Your task to perform on an android device: open app "Google Play services" Image 0: 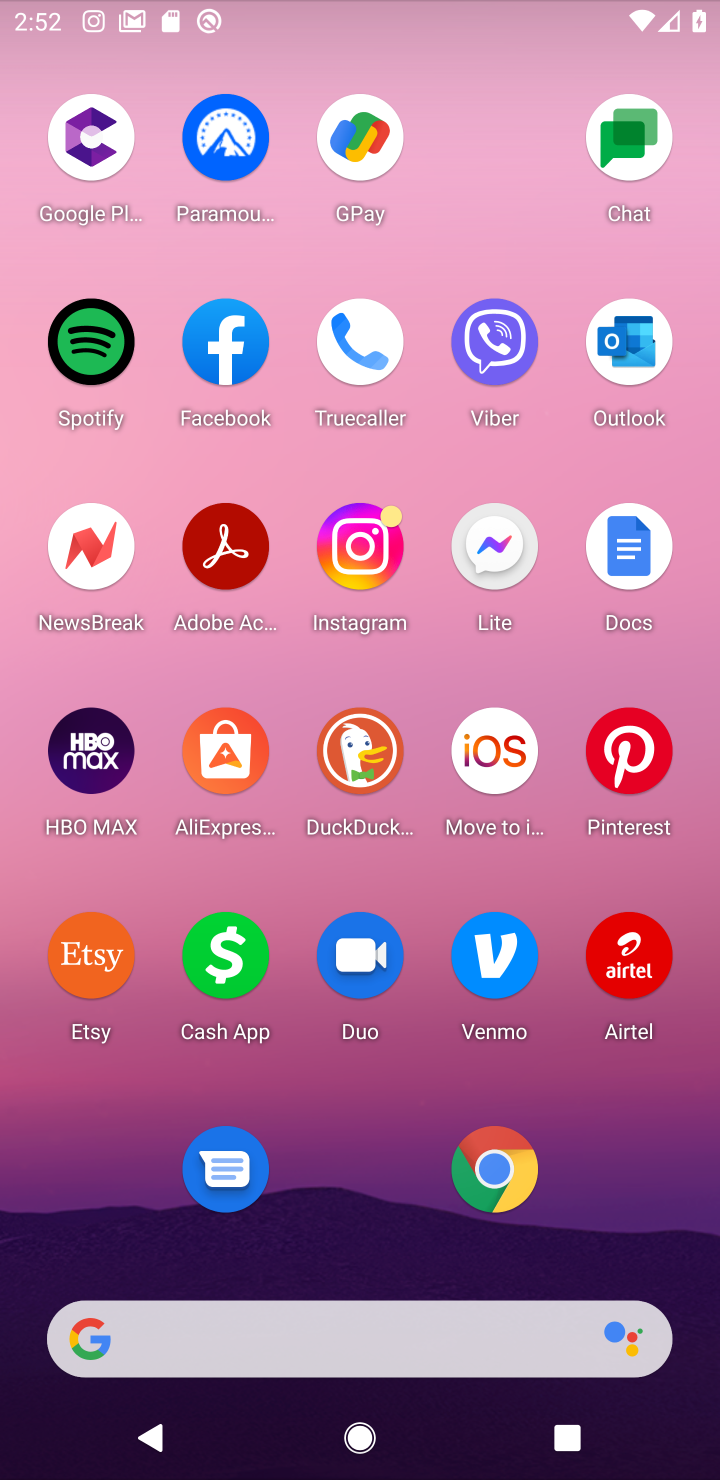
Step 0: press home button
Your task to perform on an android device: open app "Google Play services" Image 1: 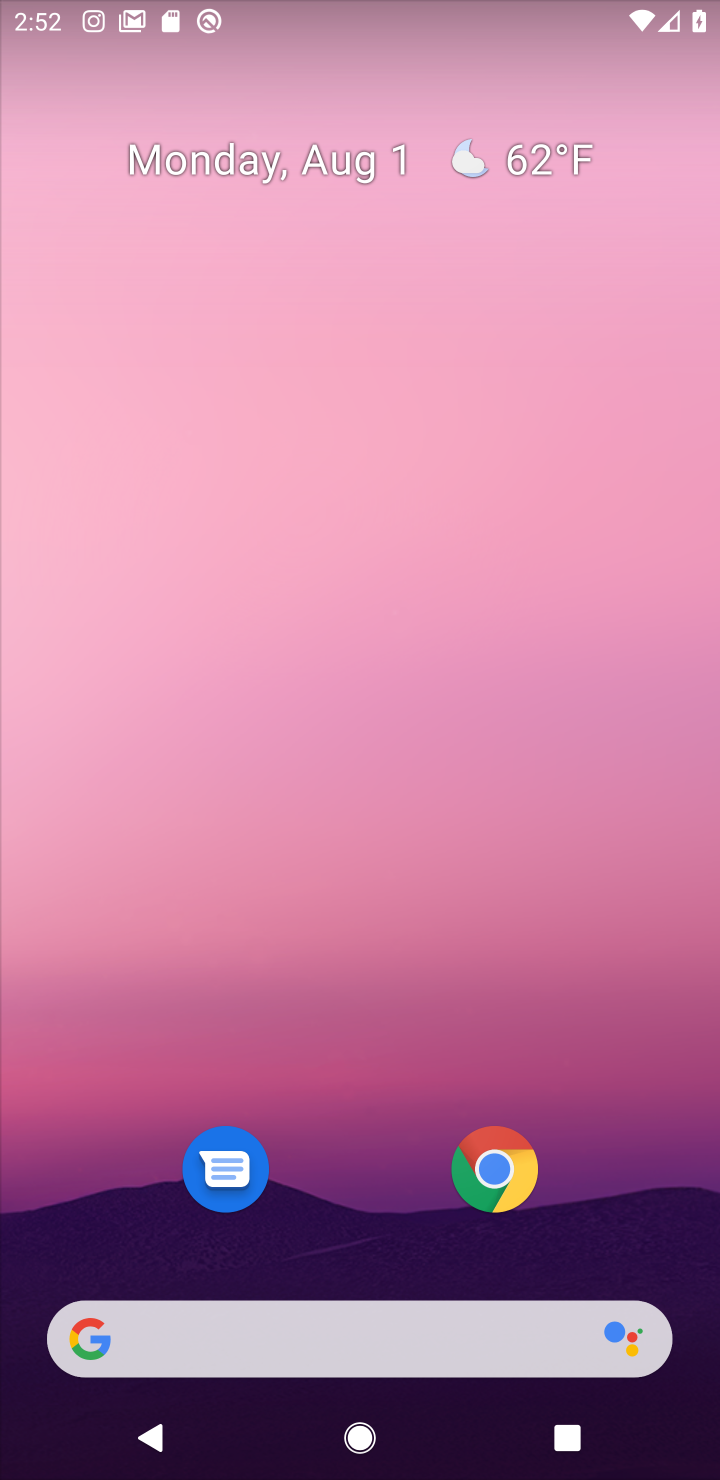
Step 1: drag from (348, 1009) to (348, 349)
Your task to perform on an android device: open app "Google Play services" Image 2: 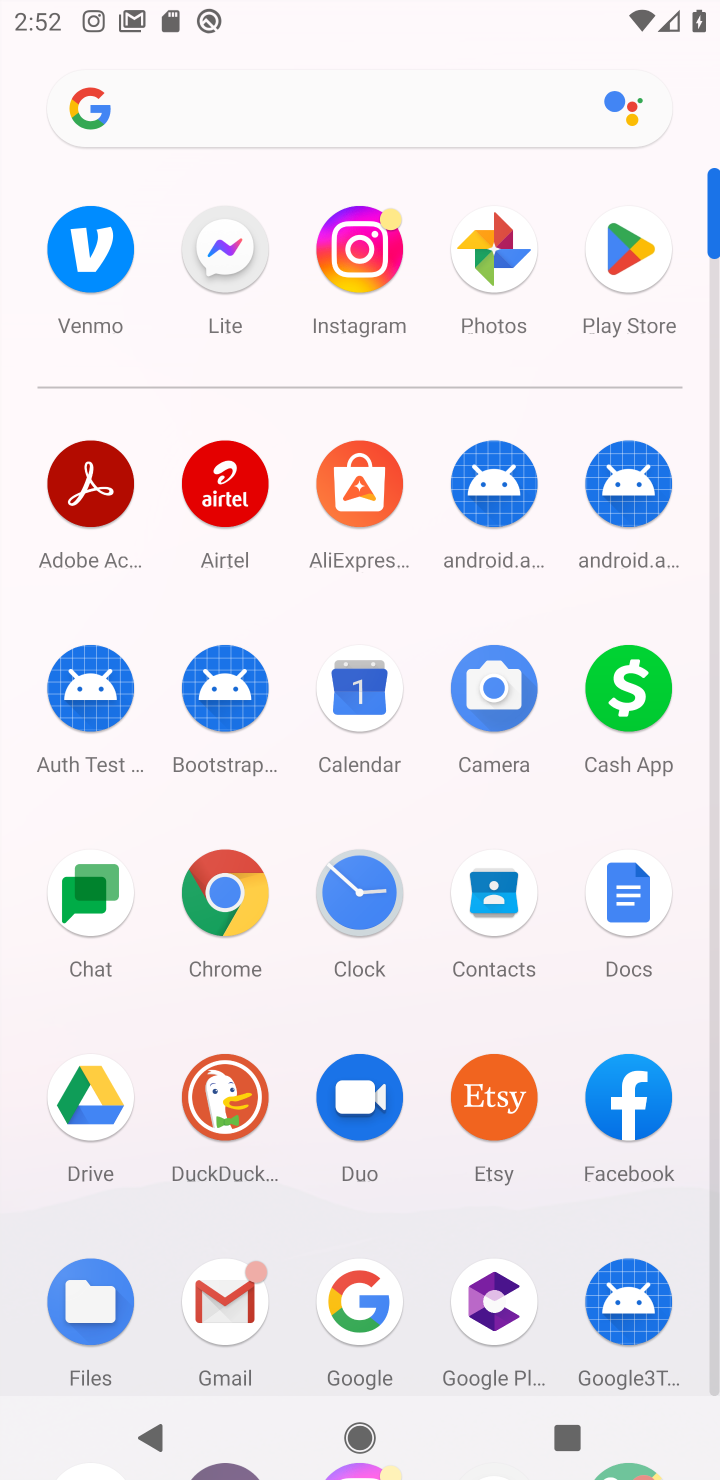
Step 2: click (337, 946)
Your task to perform on an android device: open app "Google Play services" Image 3: 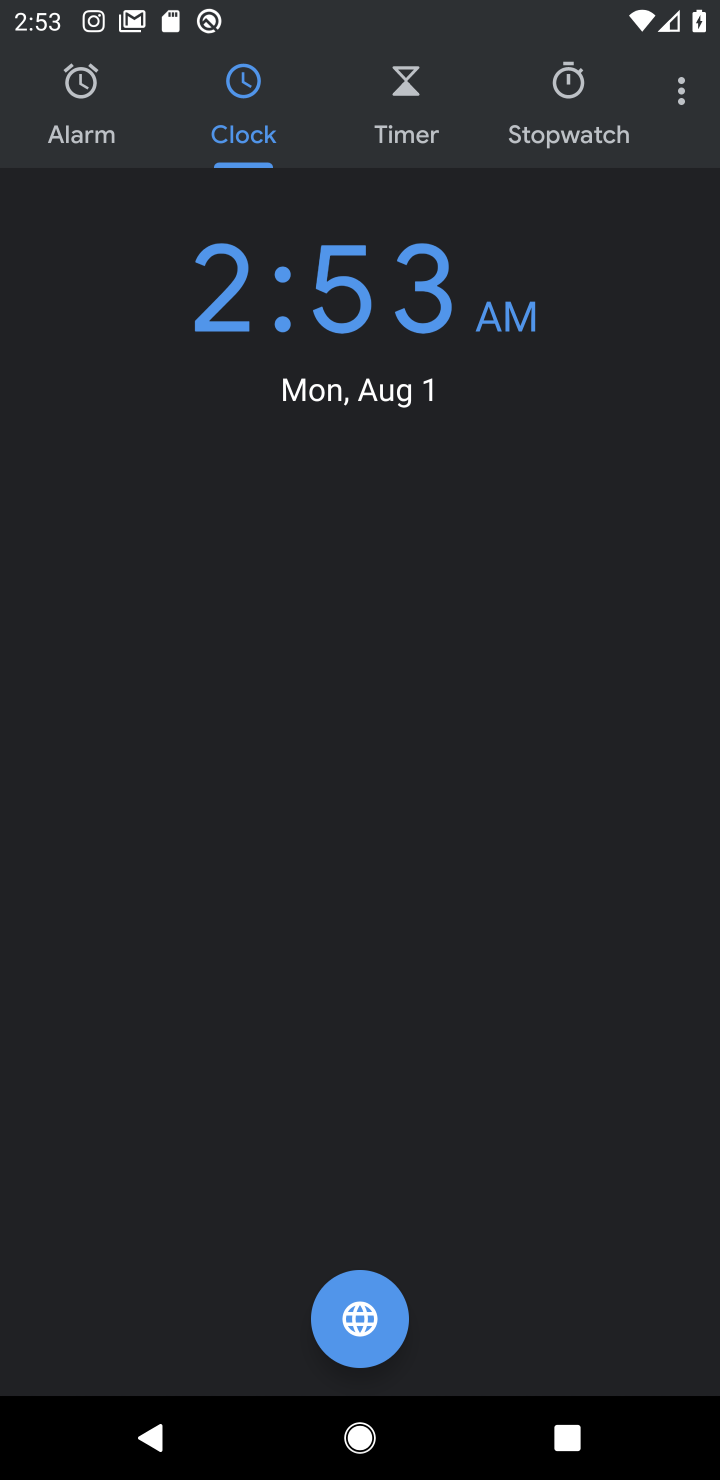
Step 3: press home button
Your task to perform on an android device: open app "Google Play services" Image 4: 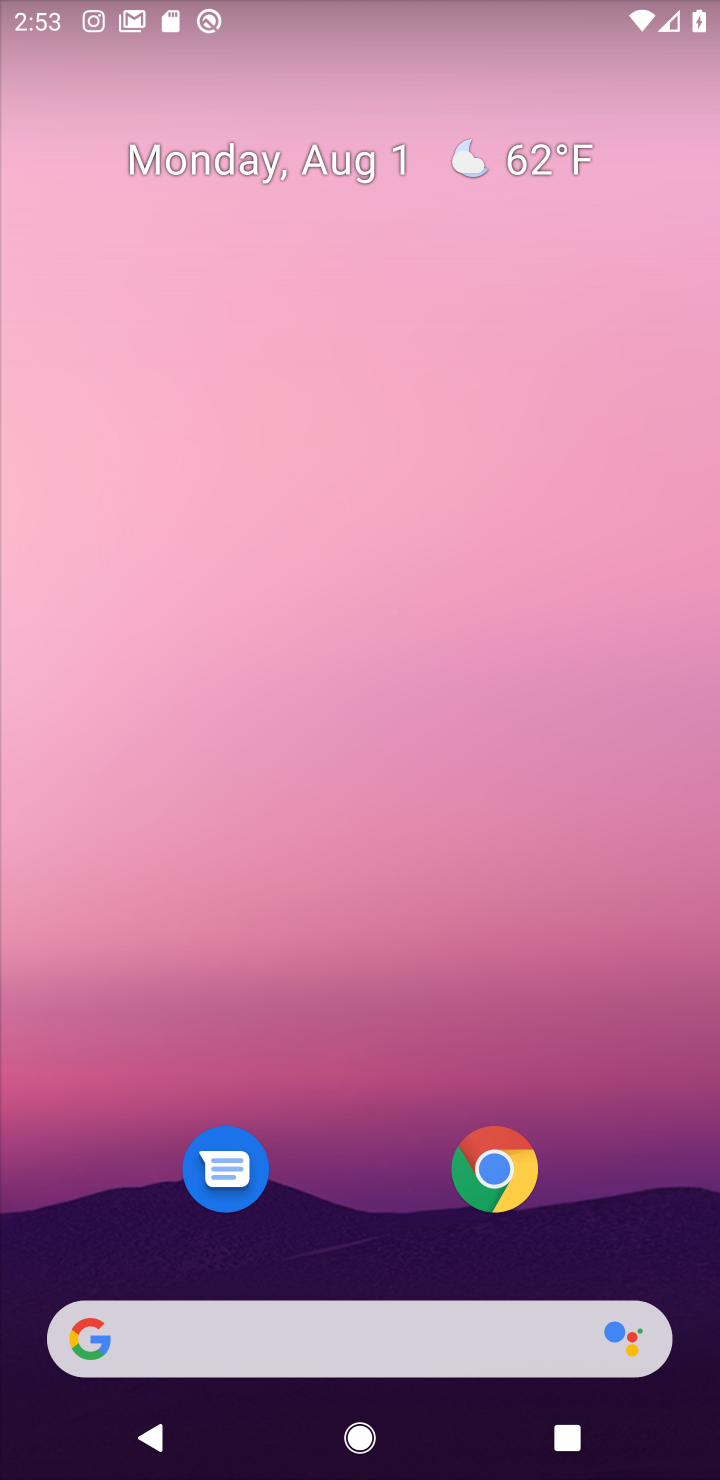
Step 4: drag from (383, 1090) to (334, 363)
Your task to perform on an android device: open app "Google Play services" Image 5: 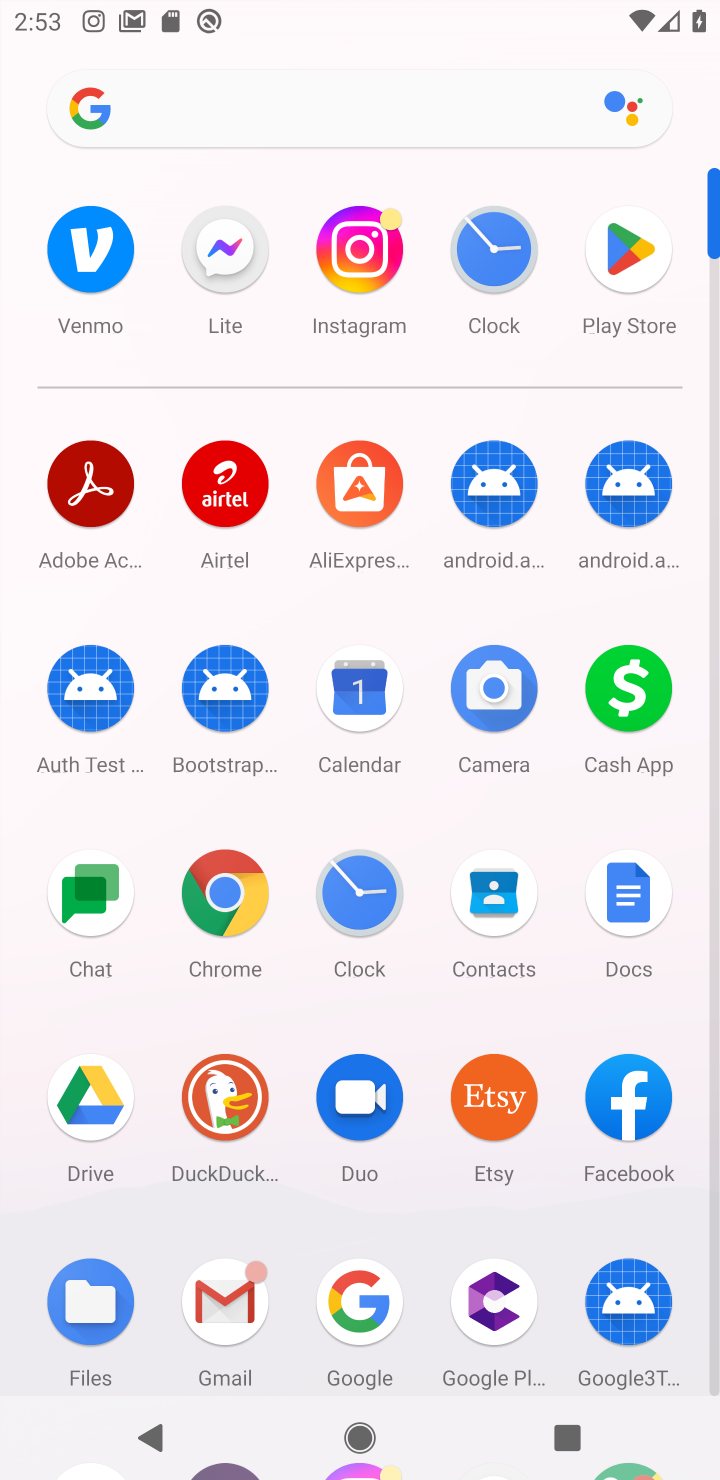
Step 5: click (634, 303)
Your task to perform on an android device: open app "Google Play services" Image 6: 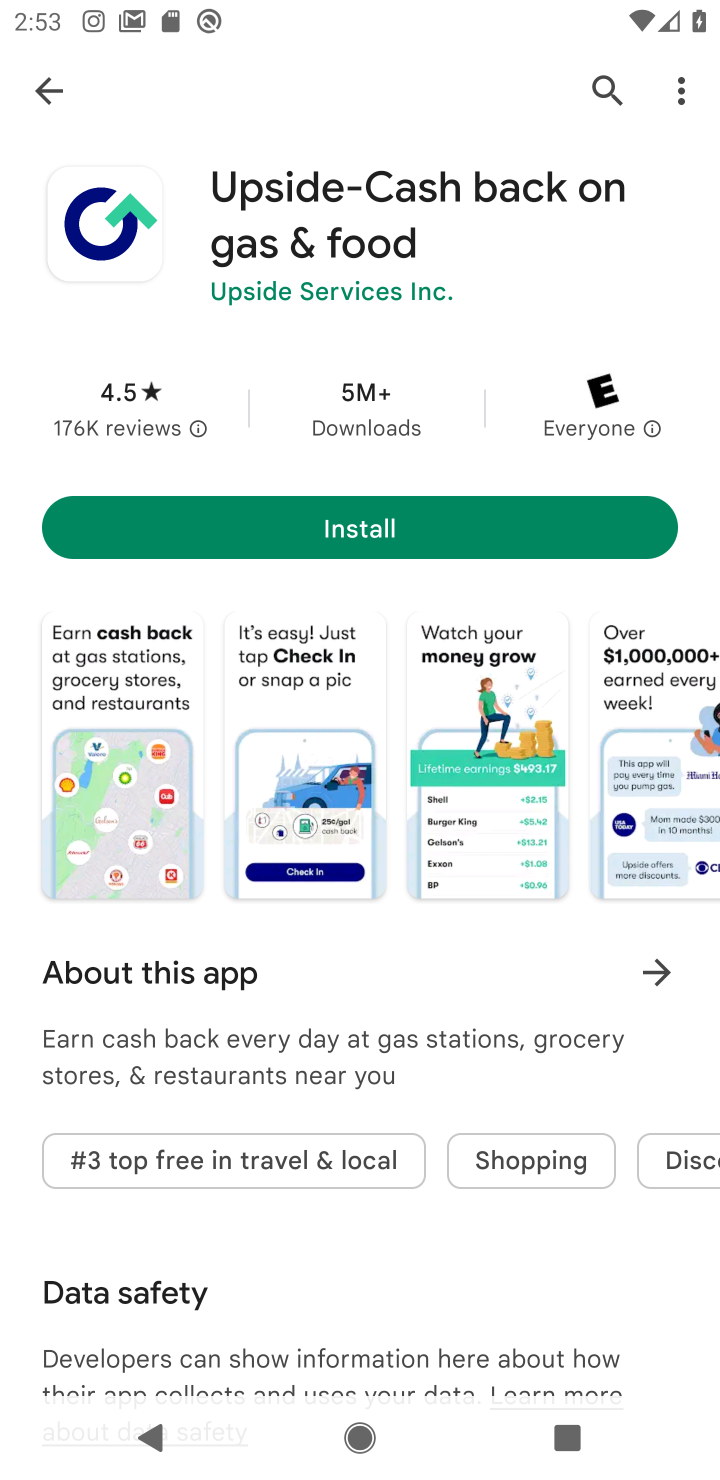
Step 6: click (32, 103)
Your task to perform on an android device: open app "Google Play services" Image 7: 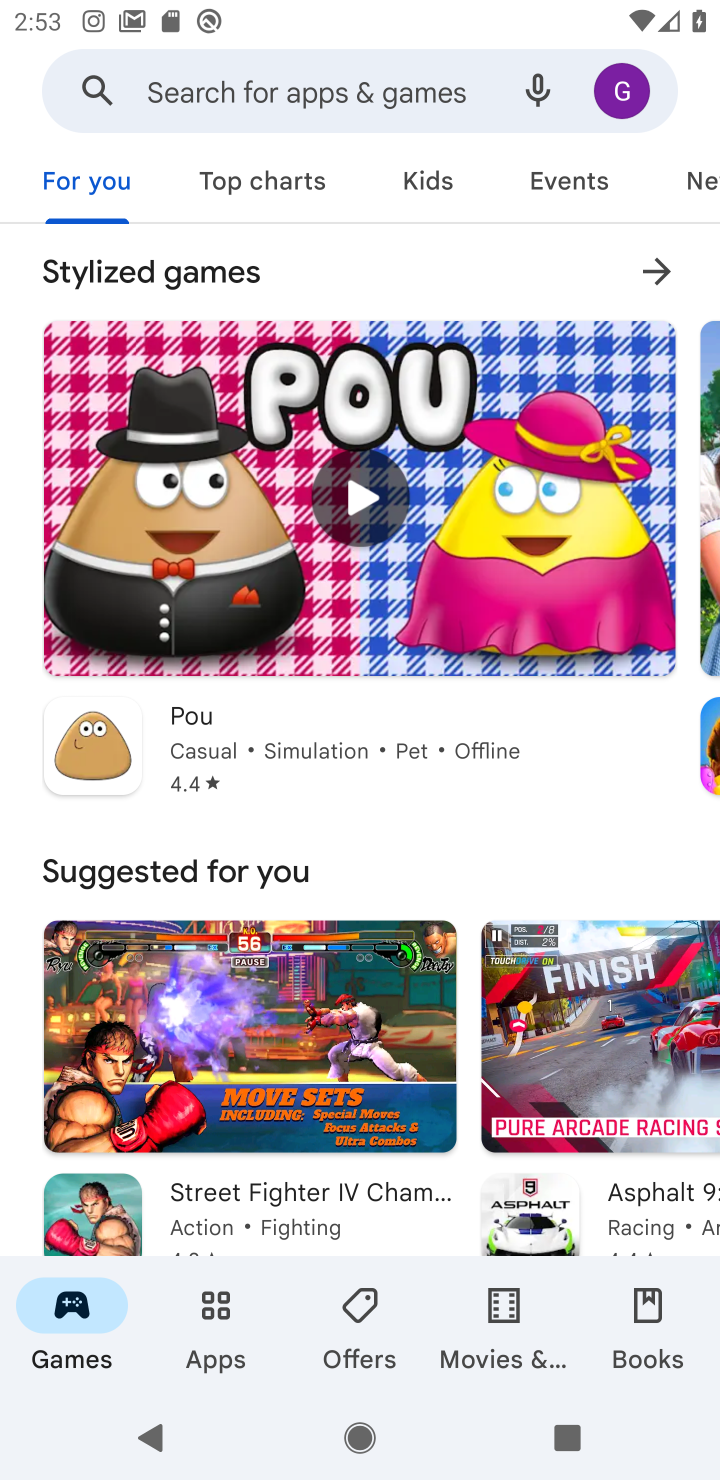
Step 7: click (236, 103)
Your task to perform on an android device: open app "Google Play services" Image 8: 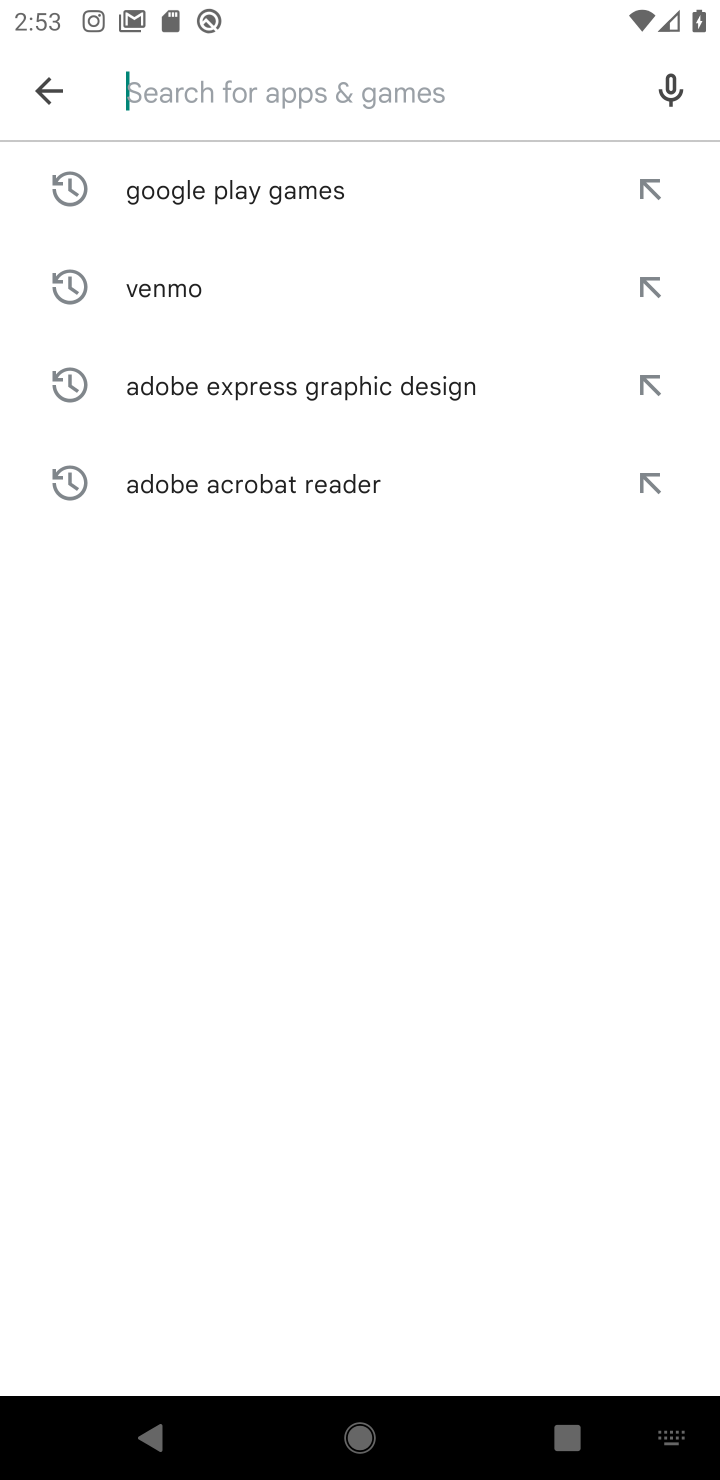
Step 8: type "google play services"
Your task to perform on an android device: open app "Google Play services" Image 9: 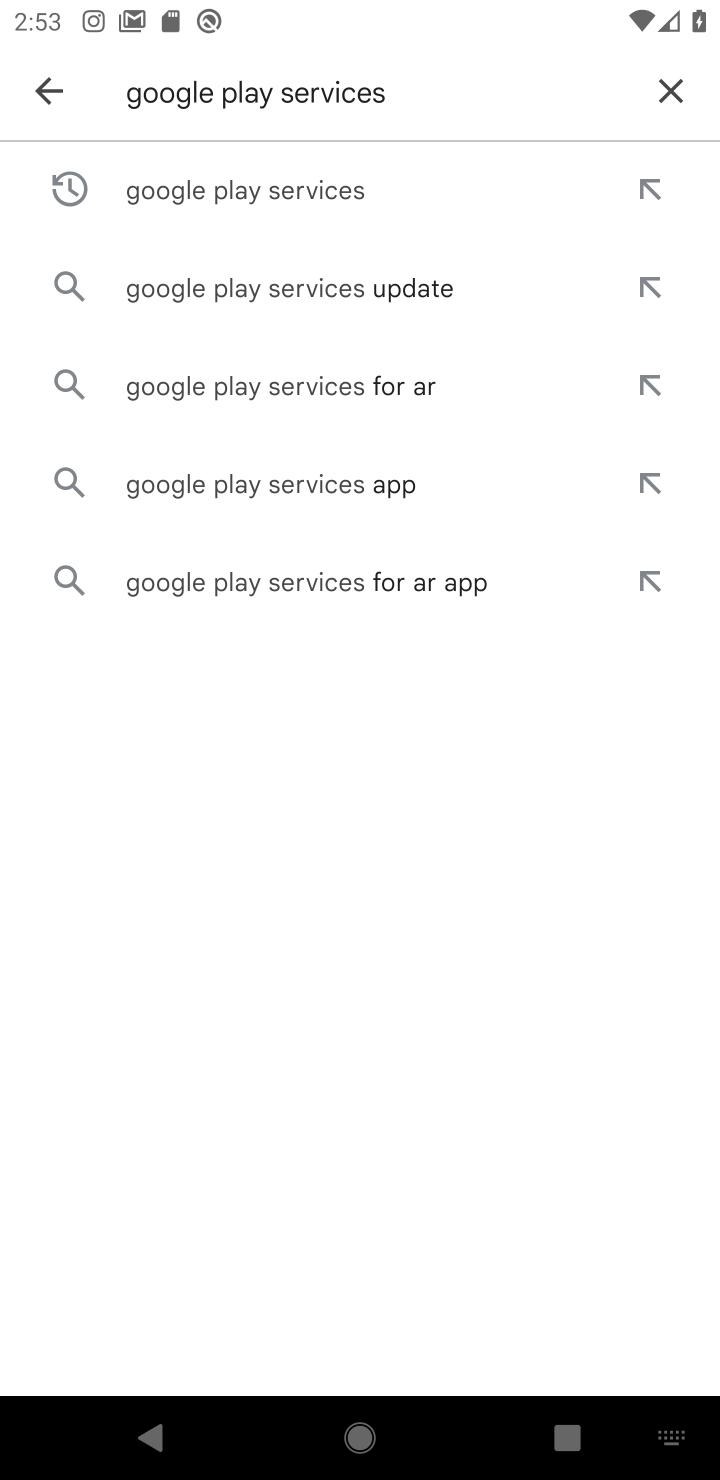
Step 9: click (286, 190)
Your task to perform on an android device: open app "Google Play services" Image 10: 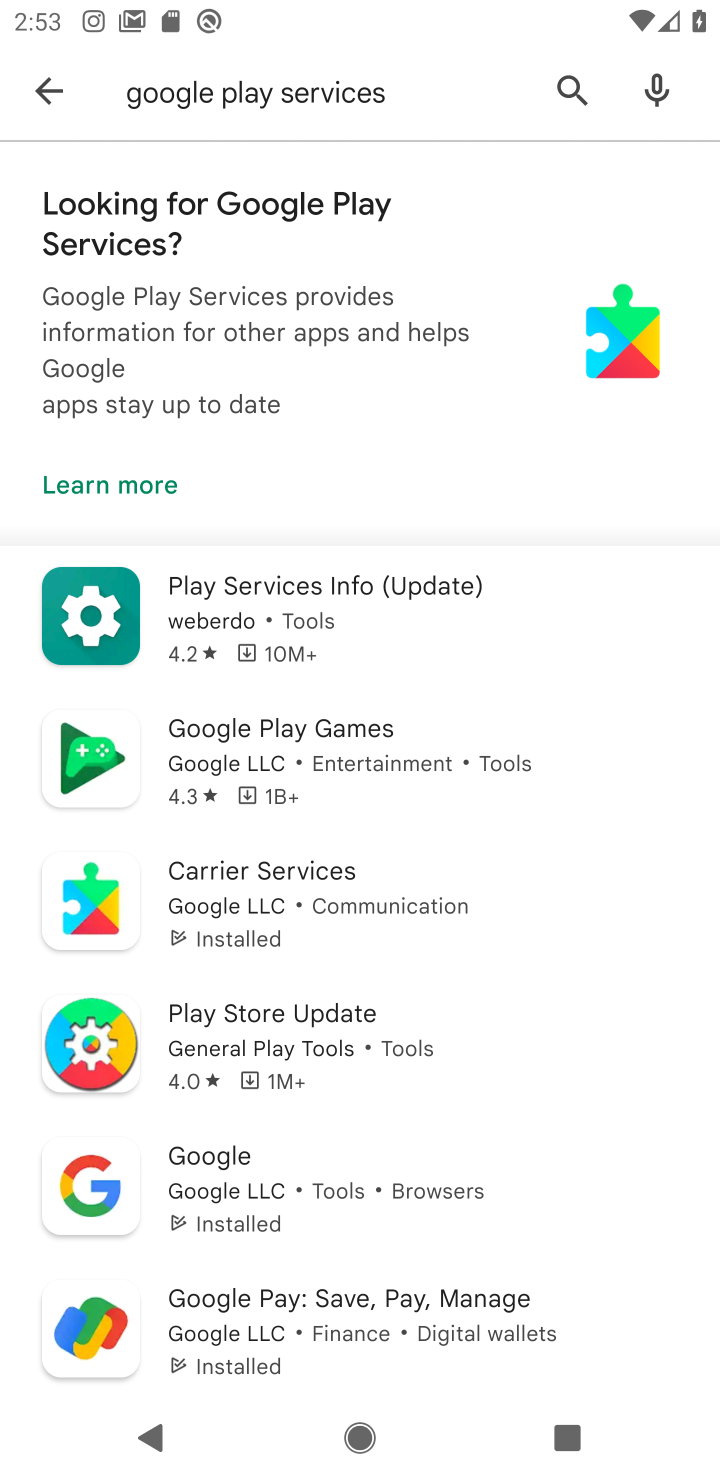
Step 10: task complete